Your task to perform on an android device: turn off location Image 0: 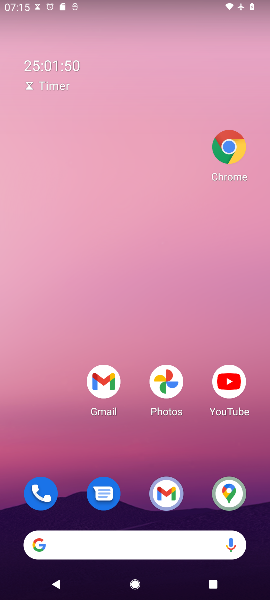
Step 0: press home button
Your task to perform on an android device: turn off location Image 1: 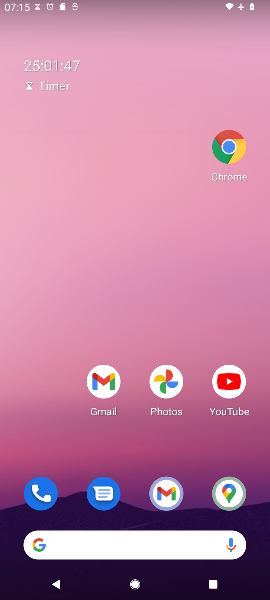
Step 1: drag from (53, 412) to (67, 83)
Your task to perform on an android device: turn off location Image 2: 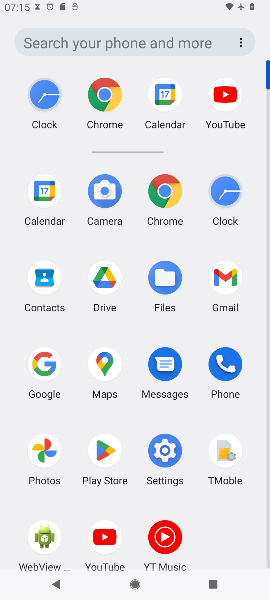
Step 2: click (167, 451)
Your task to perform on an android device: turn off location Image 3: 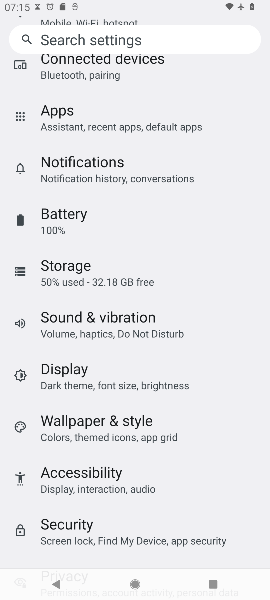
Step 3: drag from (79, 238) to (95, 126)
Your task to perform on an android device: turn off location Image 4: 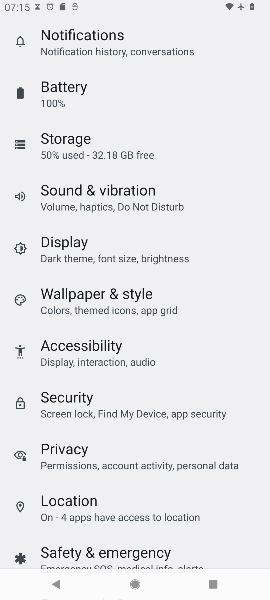
Step 4: click (76, 504)
Your task to perform on an android device: turn off location Image 5: 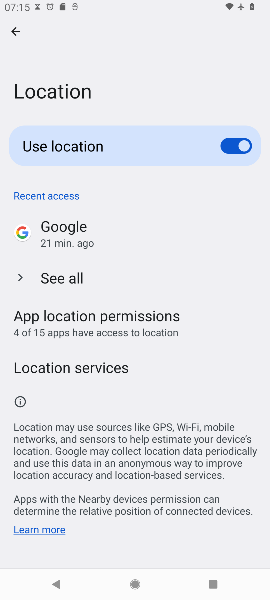
Step 5: click (230, 154)
Your task to perform on an android device: turn off location Image 6: 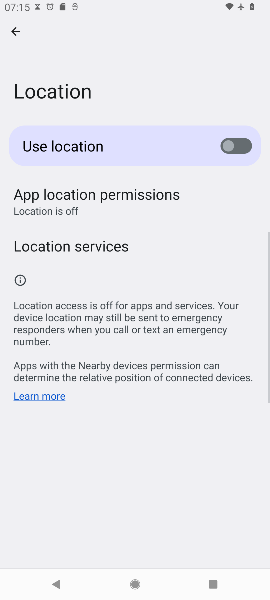
Step 6: task complete